Your task to perform on an android device: When is my next meeting? Image 0: 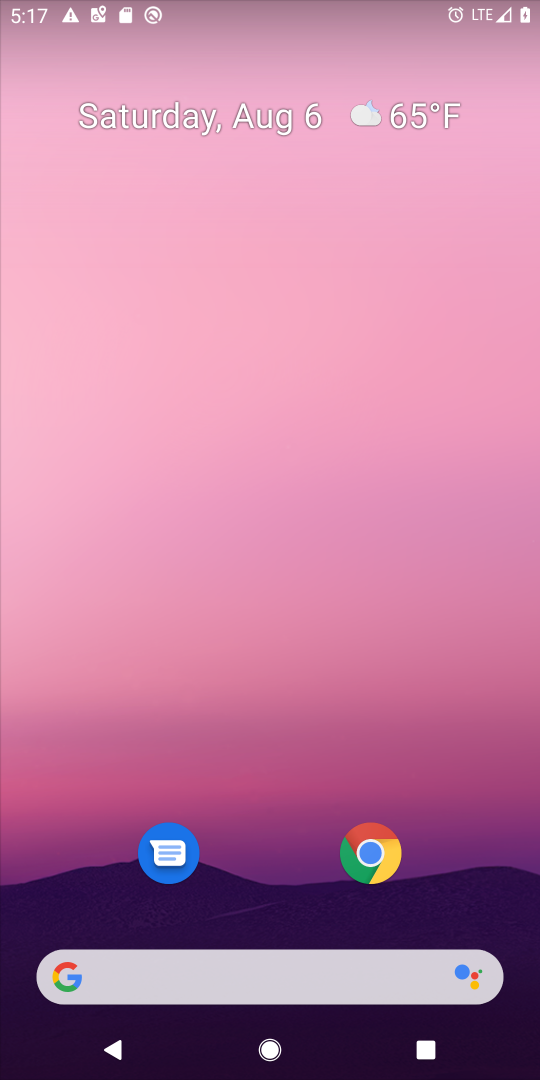
Step 0: drag from (195, 924) to (343, 88)
Your task to perform on an android device: When is my next meeting? Image 1: 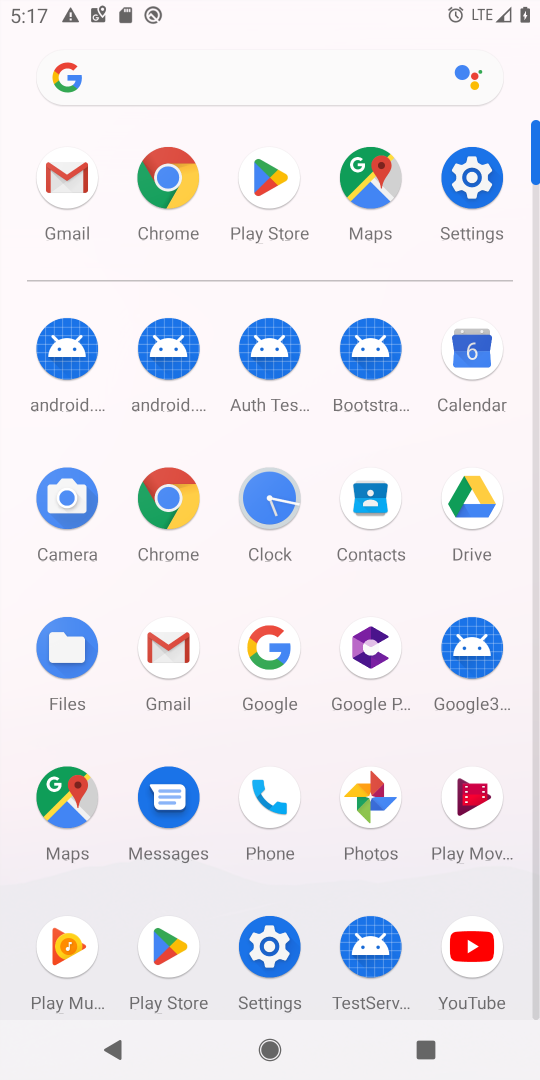
Step 1: click (469, 356)
Your task to perform on an android device: When is my next meeting? Image 2: 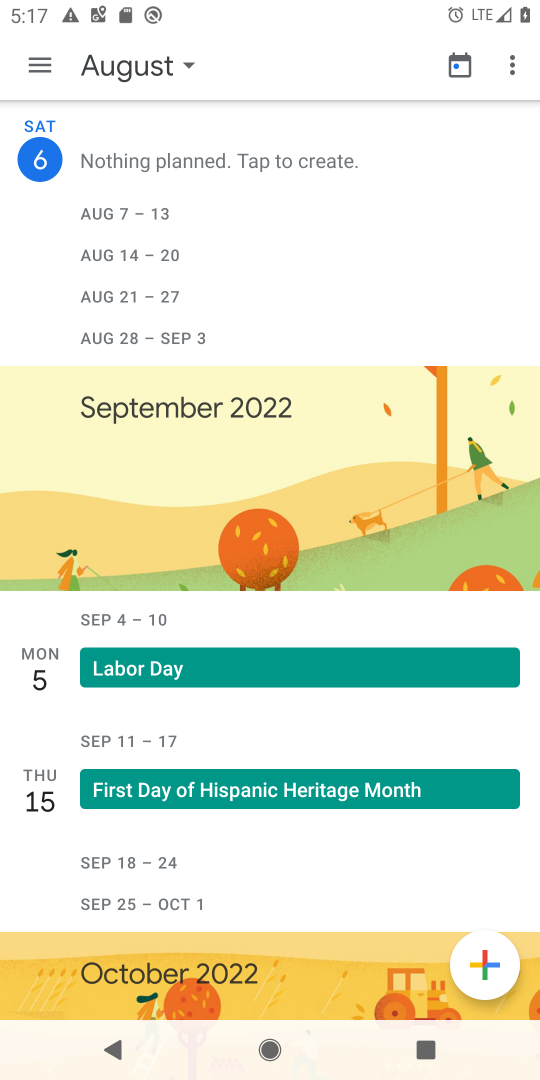
Step 2: task complete